Your task to perform on an android device: turn off airplane mode Image 0: 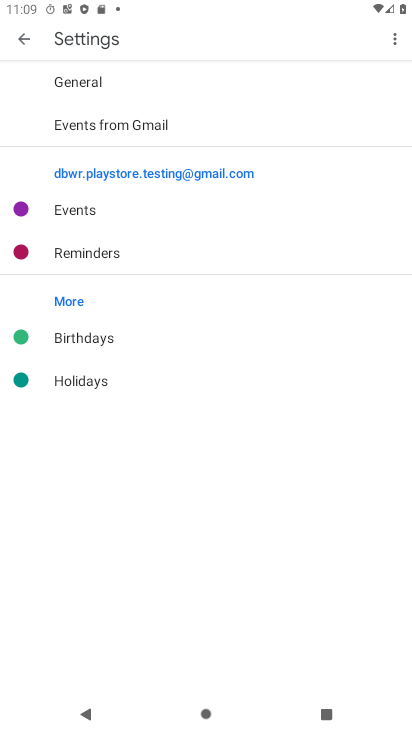
Step 0: press home button
Your task to perform on an android device: turn off airplane mode Image 1: 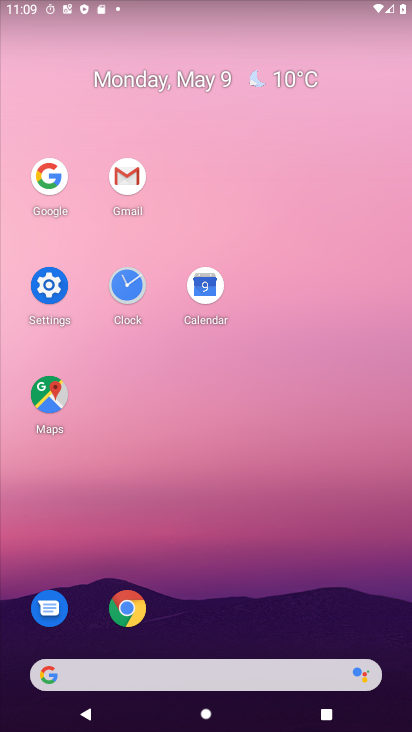
Step 1: click (54, 268)
Your task to perform on an android device: turn off airplane mode Image 2: 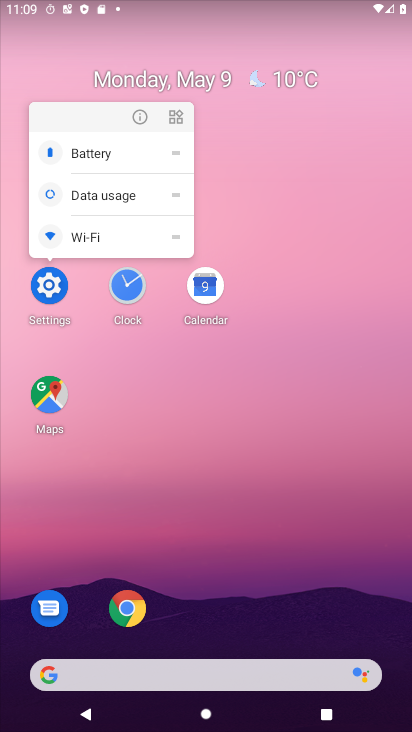
Step 2: click (63, 284)
Your task to perform on an android device: turn off airplane mode Image 3: 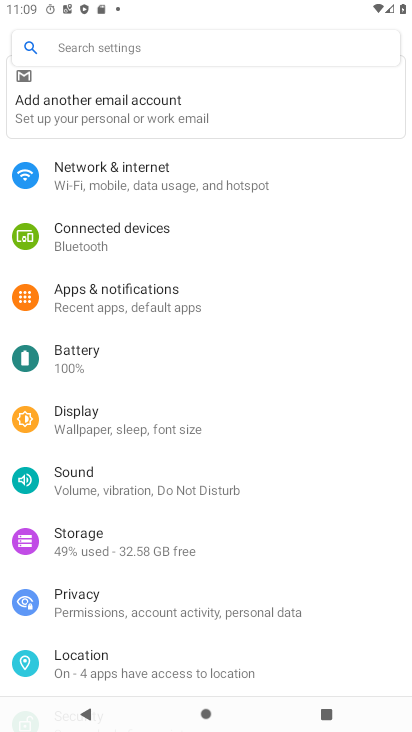
Step 3: click (220, 189)
Your task to perform on an android device: turn off airplane mode Image 4: 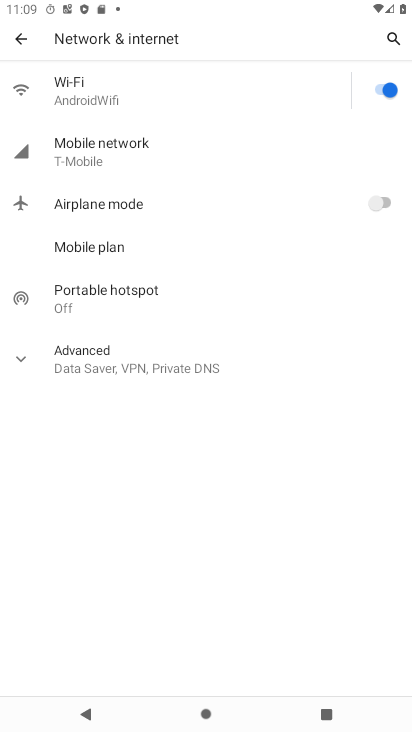
Step 4: task complete